Your task to perform on an android device: toggle improve location accuracy Image 0: 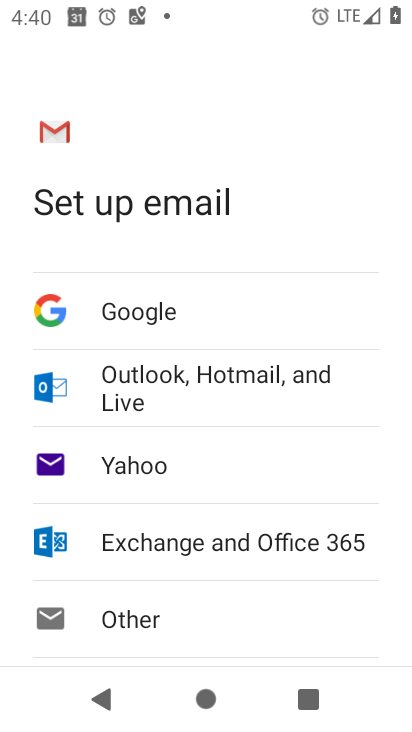
Step 0: press back button
Your task to perform on an android device: toggle improve location accuracy Image 1: 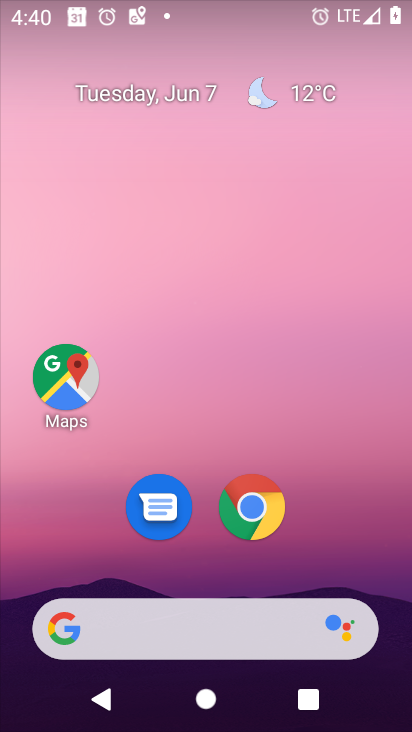
Step 1: drag from (393, 528) to (345, 14)
Your task to perform on an android device: toggle improve location accuracy Image 2: 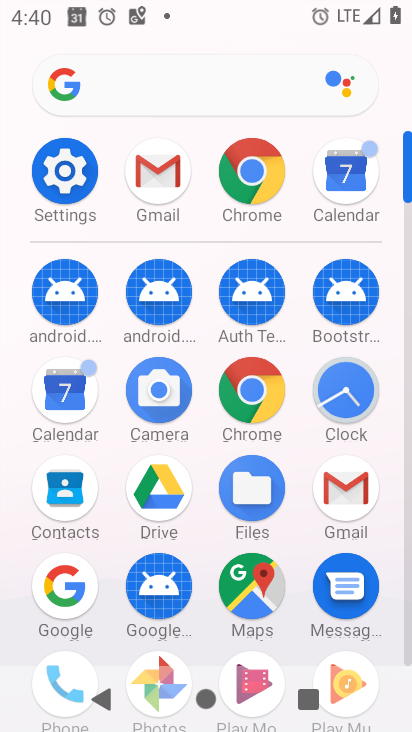
Step 2: drag from (8, 618) to (7, 244)
Your task to perform on an android device: toggle improve location accuracy Image 3: 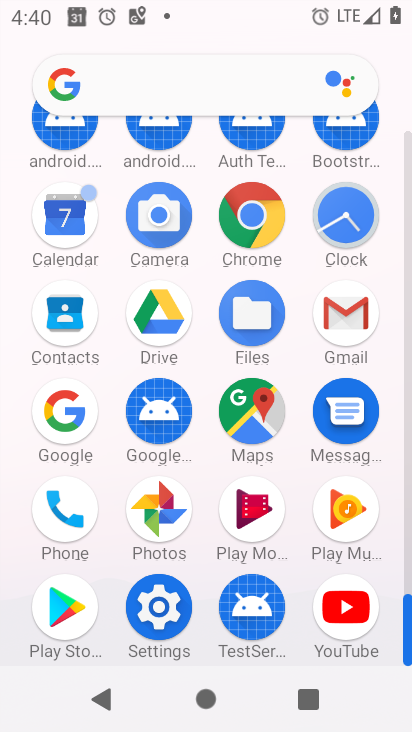
Step 3: click (160, 600)
Your task to perform on an android device: toggle improve location accuracy Image 4: 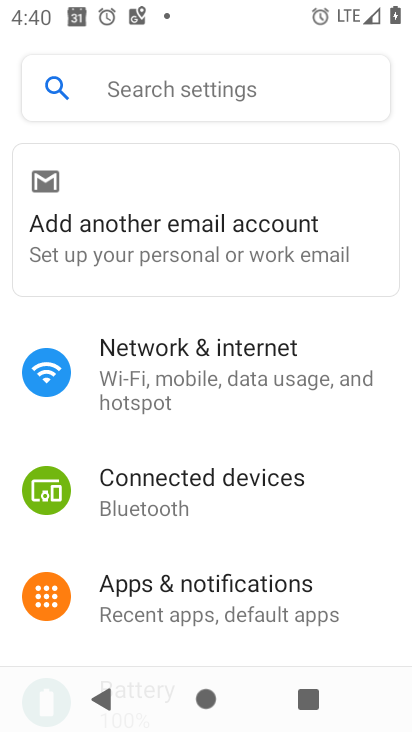
Step 4: drag from (231, 564) to (230, 148)
Your task to perform on an android device: toggle improve location accuracy Image 5: 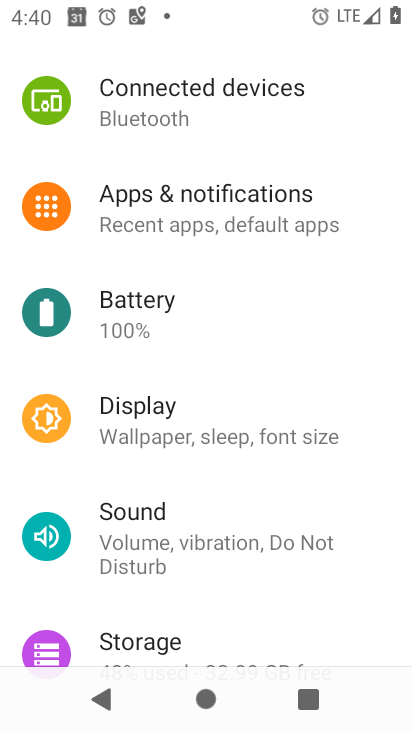
Step 5: drag from (272, 542) to (311, 156)
Your task to perform on an android device: toggle improve location accuracy Image 6: 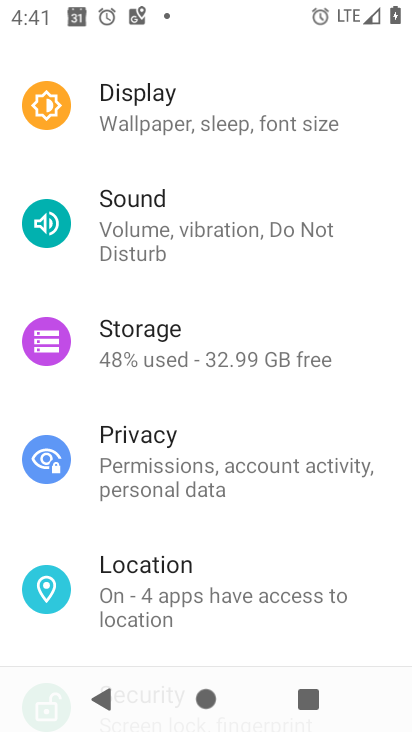
Step 6: drag from (244, 543) to (289, 191)
Your task to perform on an android device: toggle improve location accuracy Image 7: 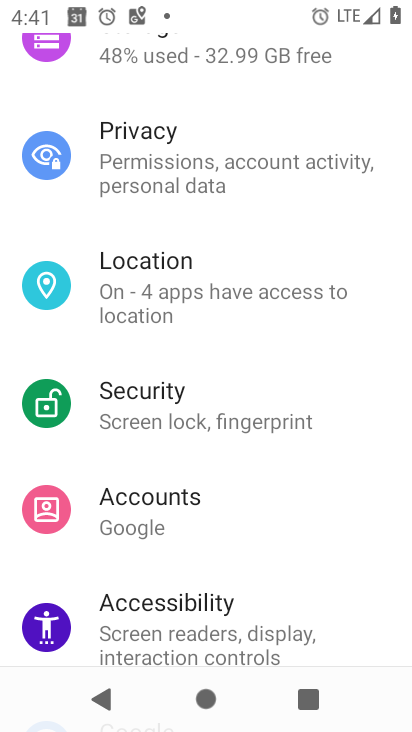
Step 7: drag from (284, 513) to (299, 229)
Your task to perform on an android device: toggle improve location accuracy Image 8: 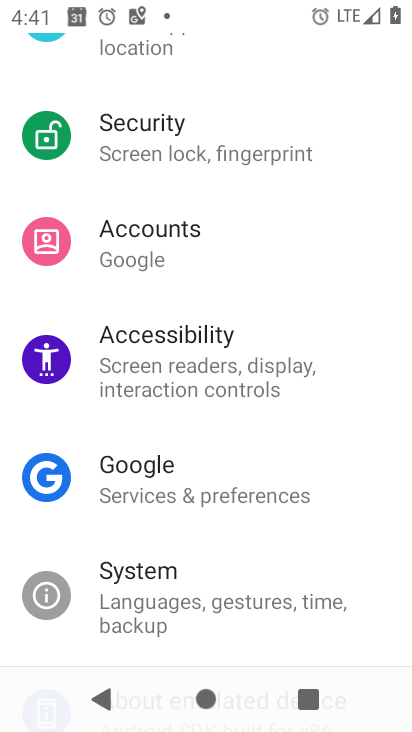
Step 8: drag from (298, 515) to (307, 186)
Your task to perform on an android device: toggle improve location accuracy Image 9: 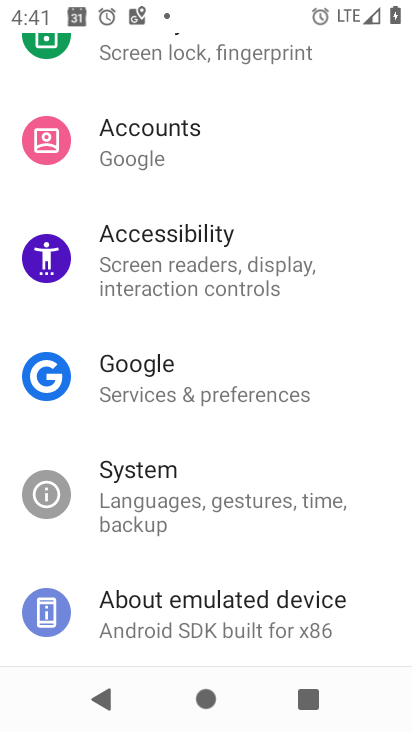
Step 9: drag from (286, 478) to (311, 148)
Your task to perform on an android device: toggle improve location accuracy Image 10: 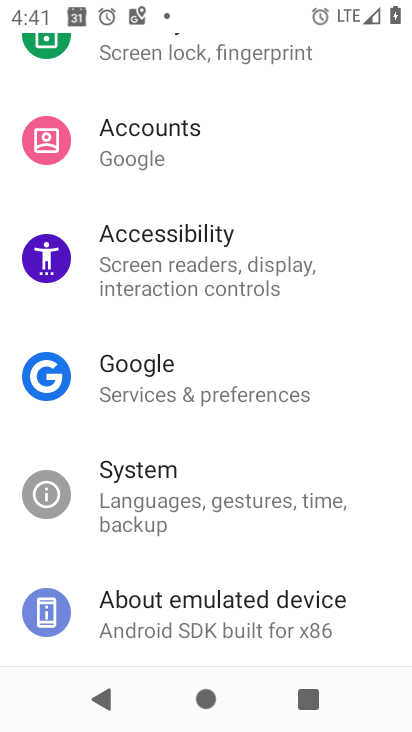
Step 10: drag from (301, 236) to (297, 567)
Your task to perform on an android device: toggle improve location accuracy Image 11: 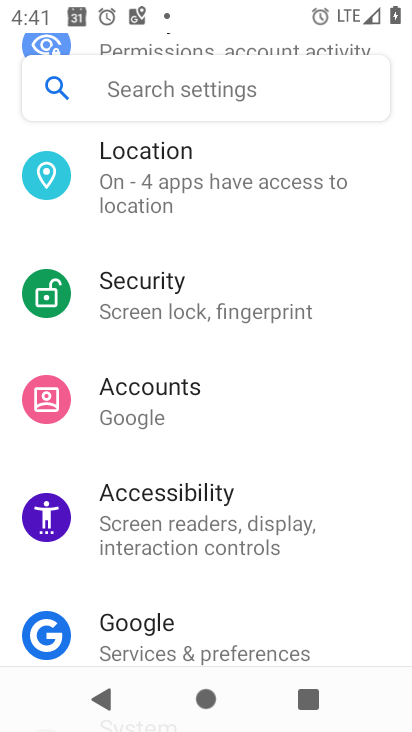
Step 11: click (248, 163)
Your task to perform on an android device: toggle improve location accuracy Image 12: 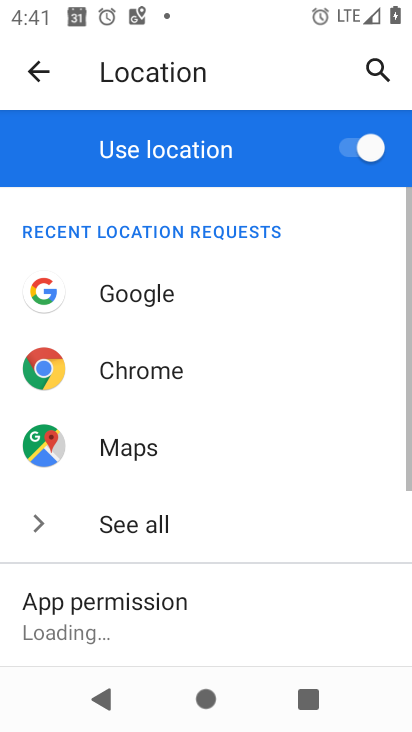
Step 12: drag from (237, 576) to (279, 225)
Your task to perform on an android device: toggle improve location accuracy Image 13: 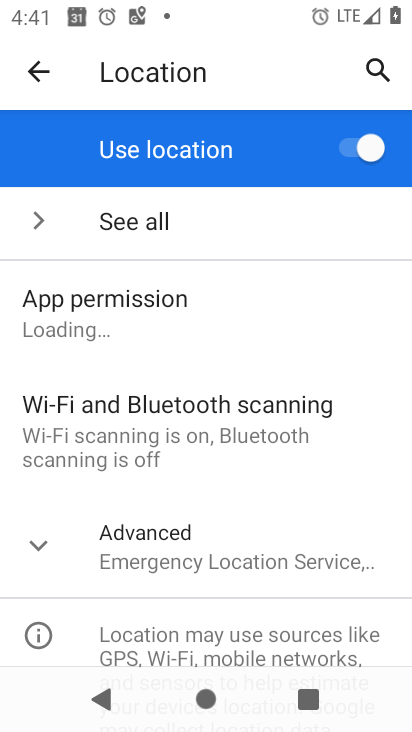
Step 13: click (137, 535)
Your task to perform on an android device: toggle improve location accuracy Image 14: 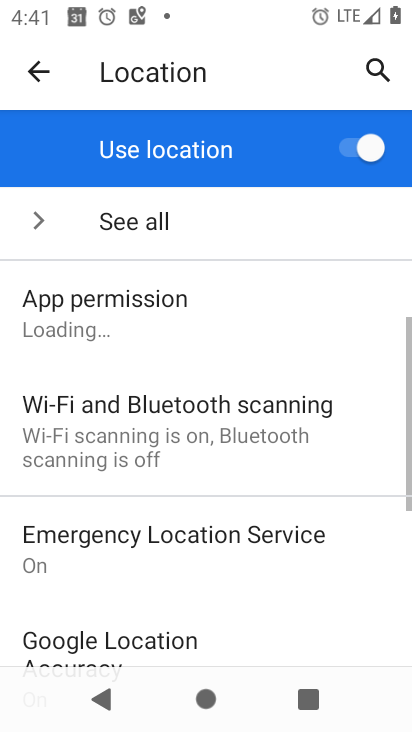
Step 14: drag from (270, 539) to (298, 212)
Your task to perform on an android device: toggle improve location accuracy Image 15: 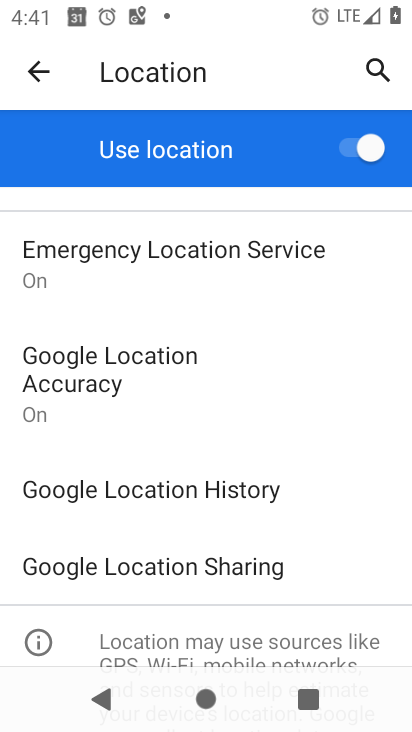
Step 15: click (153, 358)
Your task to perform on an android device: toggle improve location accuracy Image 16: 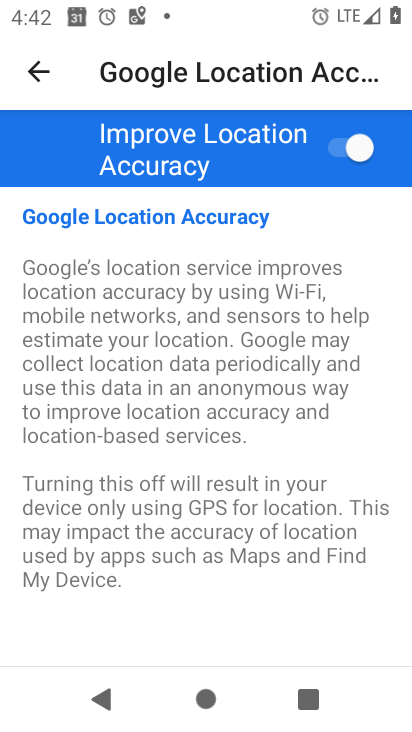
Step 16: task complete